Your task to perform on an android device: Go to eBay Image 0: 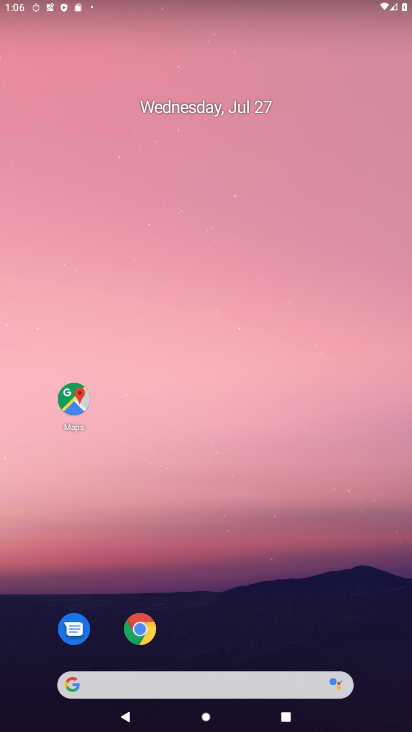
Step 0: drag from (368, 645) to (89, 34)
Your task to perform on an android device: Go to eBay Image 1: 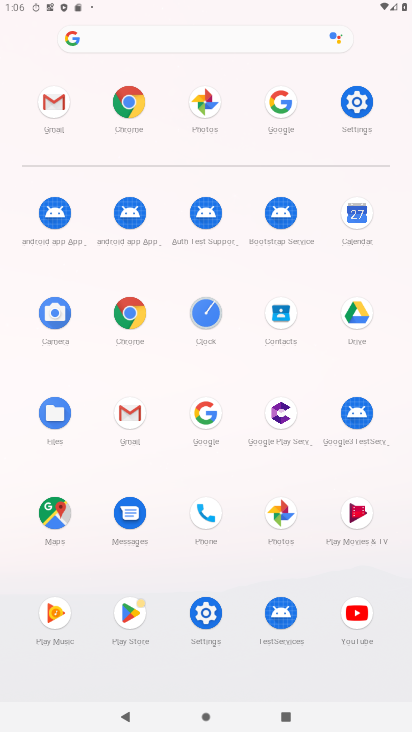
Step 1: drag from (341, 613) to (97, 87)
Your task to perform on an android device: Go to eBay Image 2: 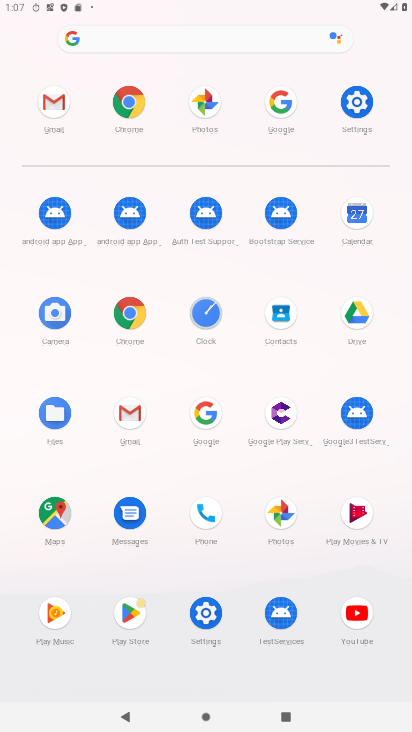
Step 2: click (206, 407)
Your task to perform on an android device: Go to eBay Image 3: 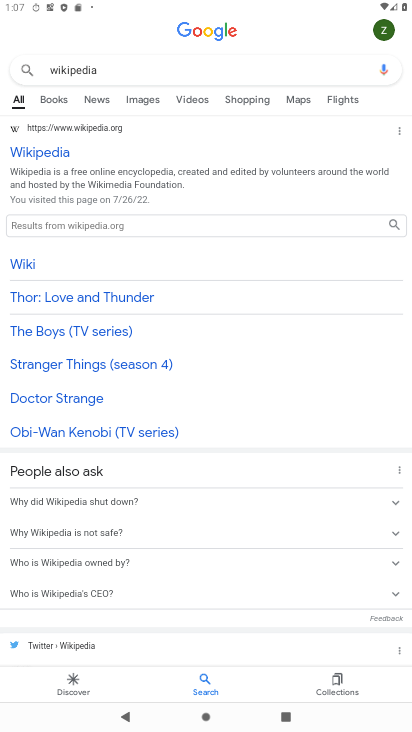
Step 3: press back button
Your task to perform on an android device: Go to eBay Image 4: 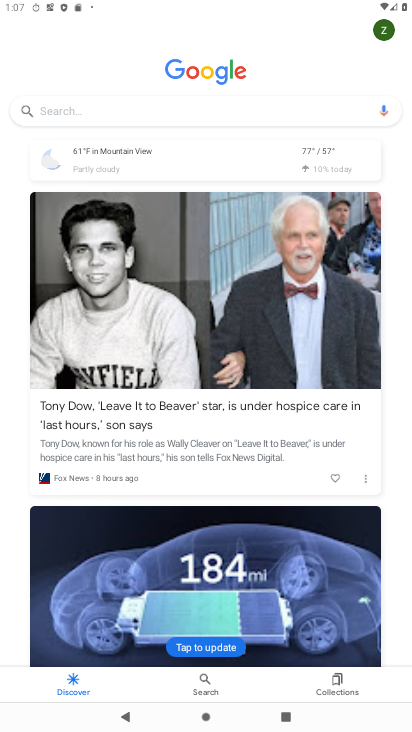
Step 4: click (90, 113)
Your task to perform on an android device: Go to eBay Image 5: 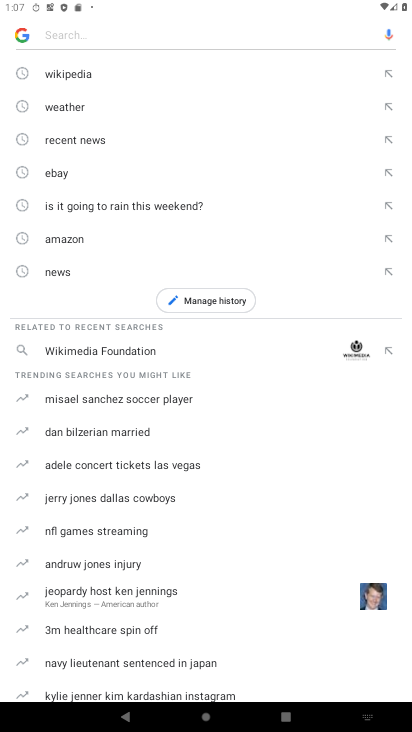
Step 5: type "eBay"
Your task to perform on an android device: Go to eBay Image 6: 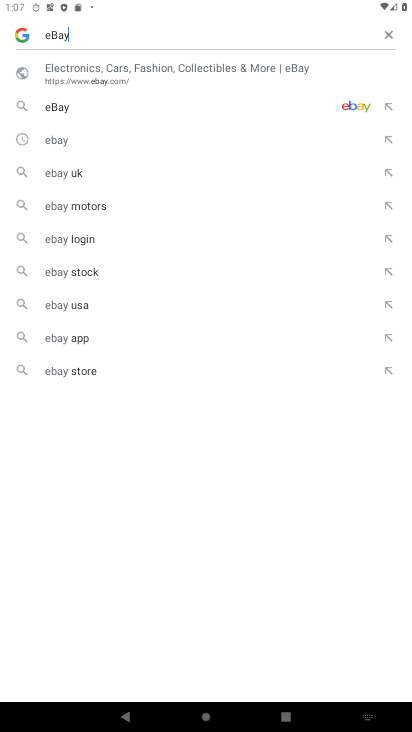
Step 6: click (78, 103)
Your task to perform on an android device: Go to eBay Image 7: 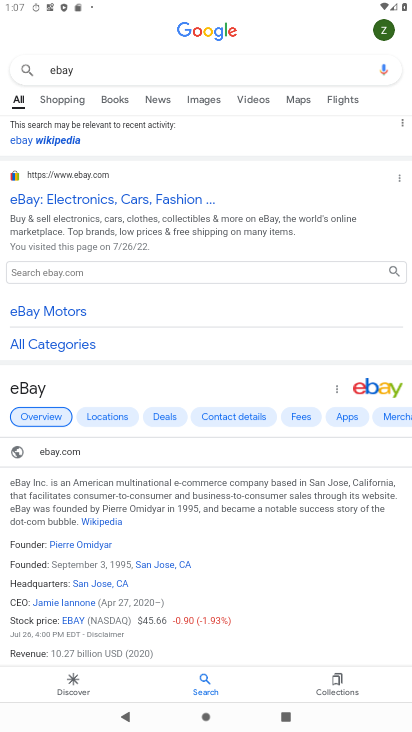
Step 7: task complete